Your task to perform on an android device: change notification settings in the gmail app Image 0: 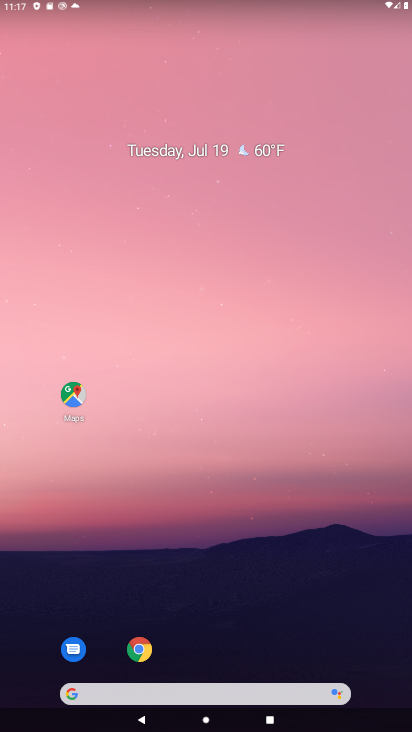
Step 0: drag from (216, 667) to (213, 216)
Your task to perform on an android device: change notification settings in the gmail app Image 1: 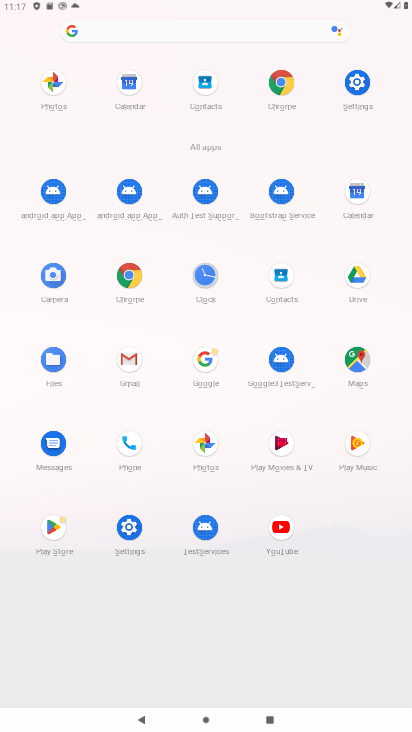
Step 1: click (135, 377)
Your task to perform on an android device: change notification settings in the gmail app Image 2: 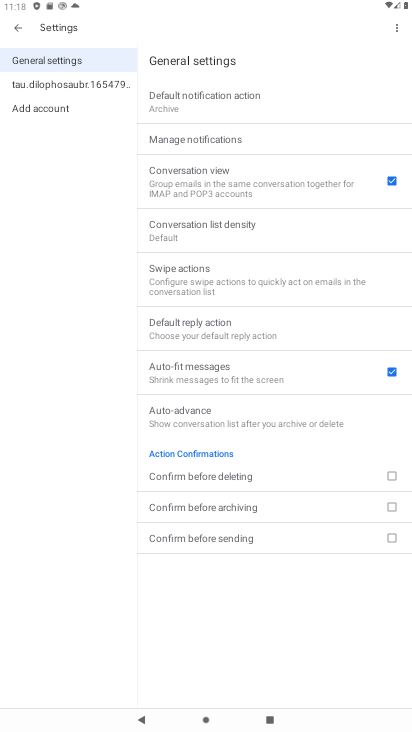
Step 2: click (57, 76)
Your task to perform on an android device: change notification settings in the gmail app Image 3: 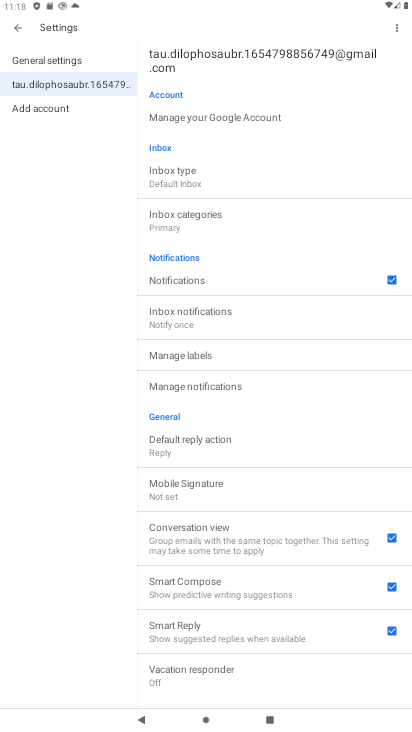
Step 3: click (204, 392)
Your task to perform on an android device: change notification settings in the gmail app Image 4: 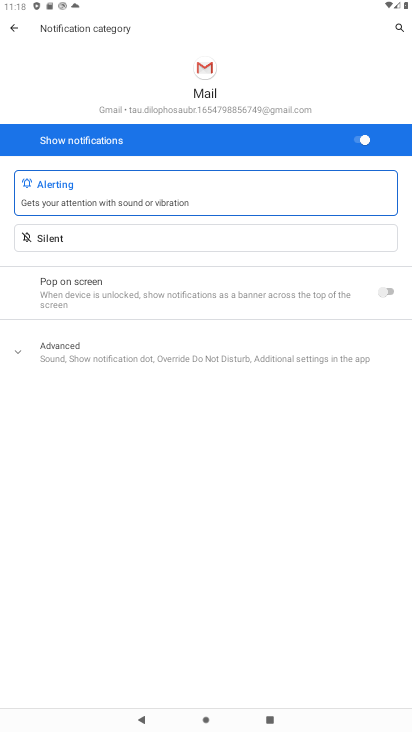
Step 4: click (361, 149)
Your task to perform on an android device: change notification settings in the gmail app Image 5: 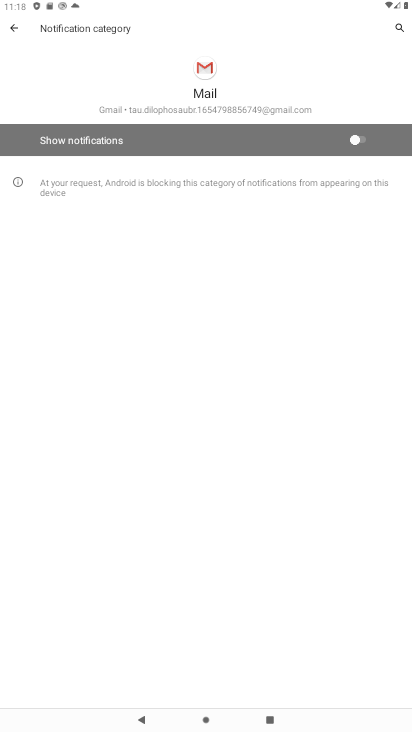
Step 5: task complete